Your task to perform on an android device: Open Amazon Image 0: 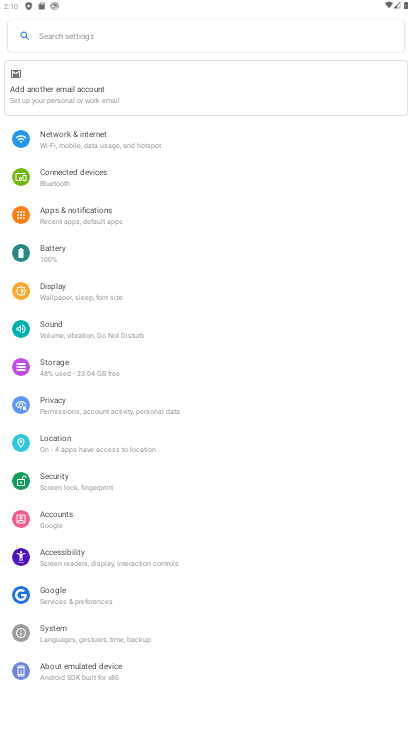
Step 0: press home button
Your task to perform on an android device: Open Amazon Image 1: 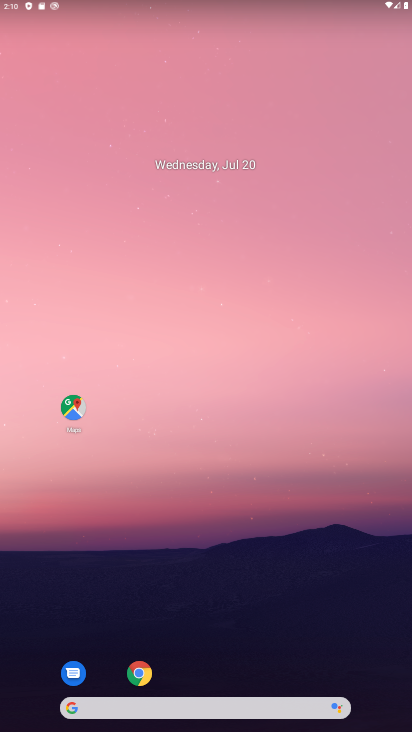
Step 1: click (149, 673)
Your task to perform on an android device: Open Amazon Image 2: 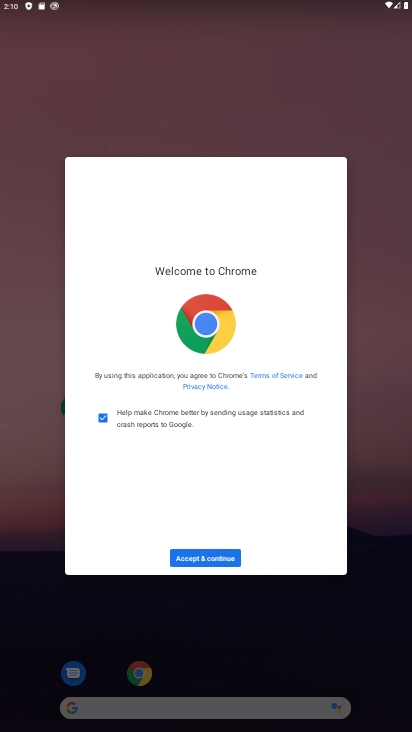
Step 2: click (198, 557)
Your task to perform on an android device: Open Amazon Image 3: 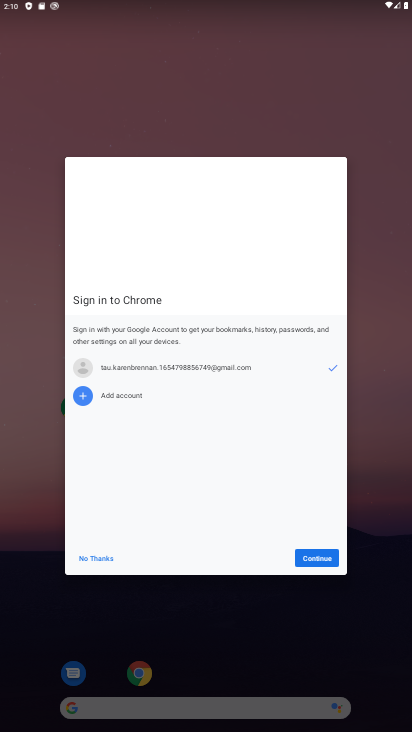
Step 3: click (319, 555)
Your task to perform on an android device: Open Amazon Image 4: 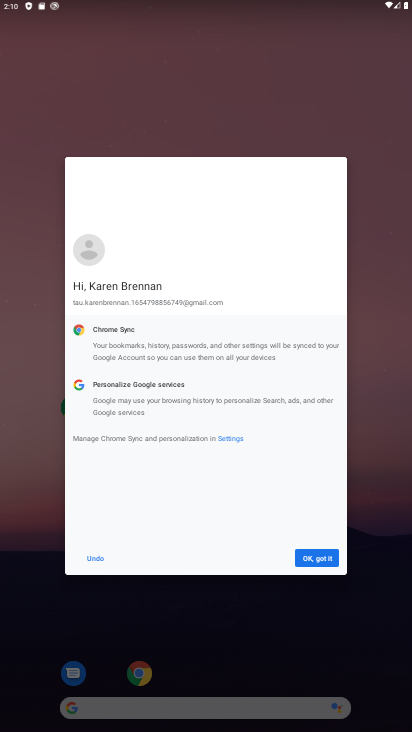
Step 4: click (319, 555)
Your task to perform on an android device: Open Amazon Image 5: 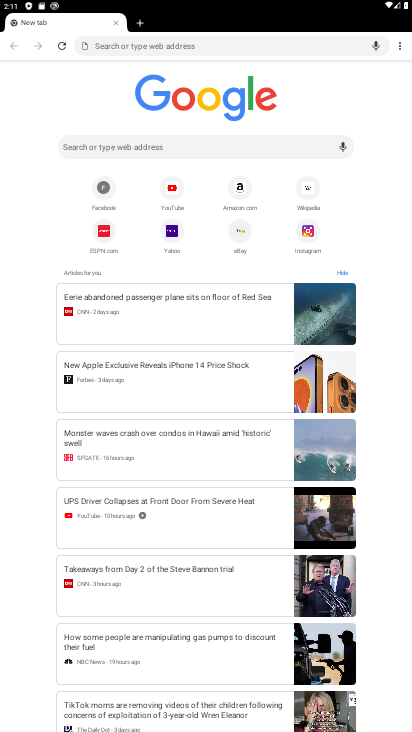
Step 5: click (246, 188)
Your task to perform on an android device: Open Amazon Image 6: 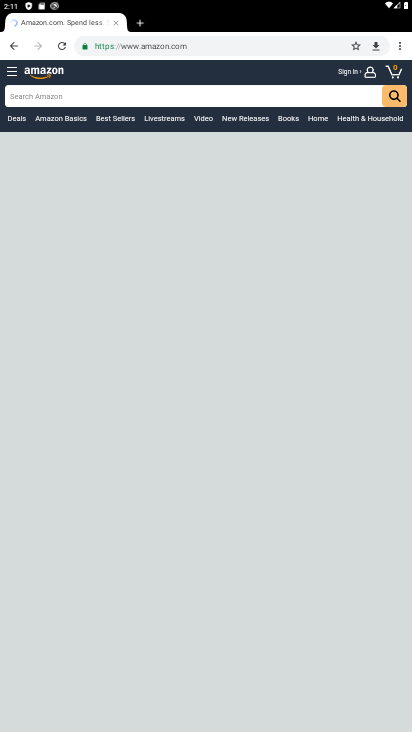
Step 6: task complete